Your task to perform on an android device: change your default location settings in chrome Image 0: 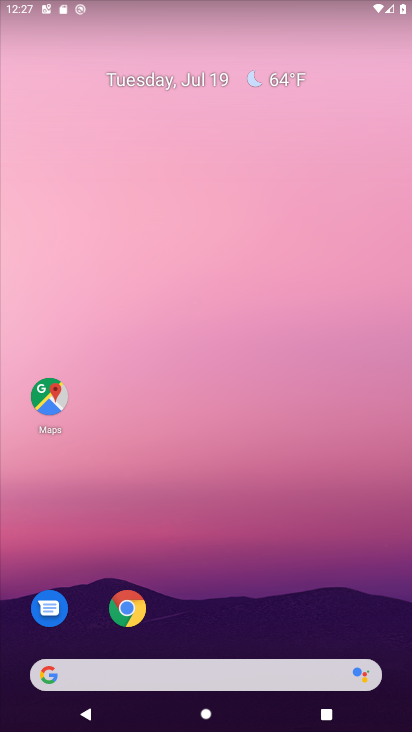
Step 0: drag from (312, 590) to (303, 73)
Your task to perform on an android device: change your default location settings in chrome Image 1: 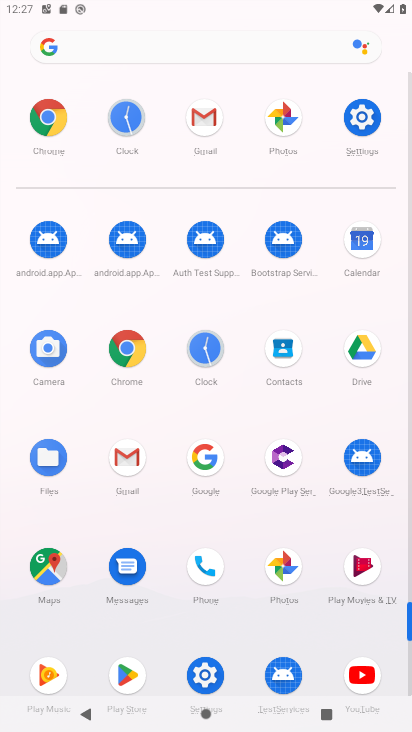
Step 1: click (134, 358)
Your task to perform on an android device: change your default location settings in chrome Image 2: 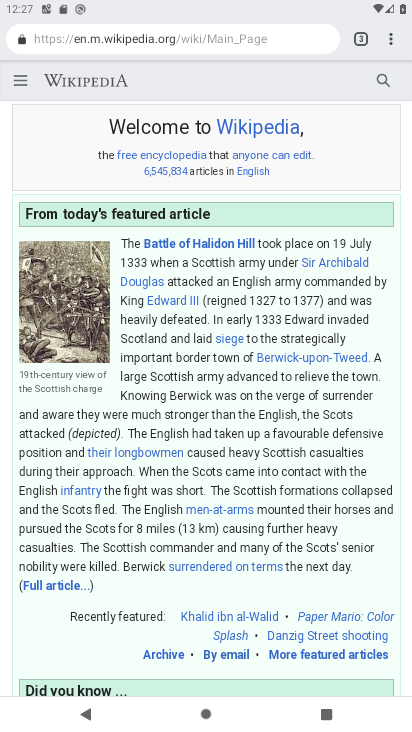
Step 2: click (389, 36)
Your task to perform on an android device: change your default location settings in chrome Image 3: 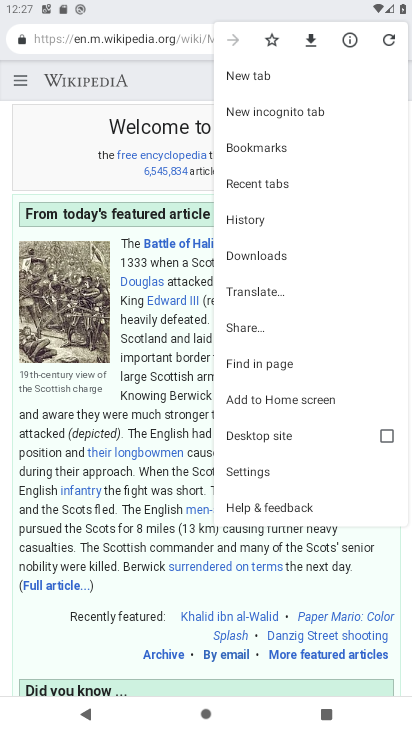
Step 3: click (269, 469)
Your task to perform on an android device: change your default location settings in chrome Image 4: 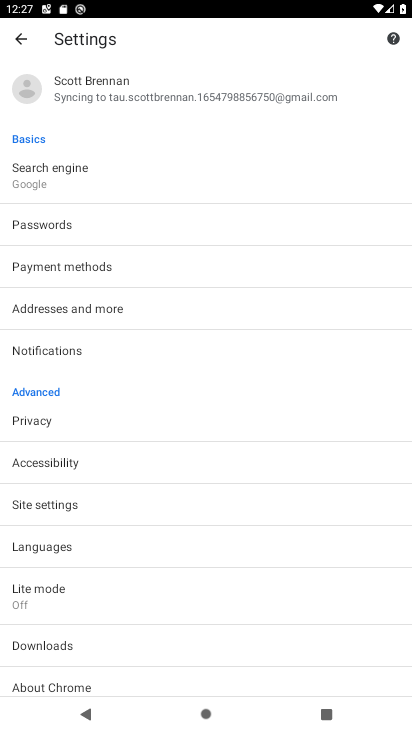
Step 4: click (89, 501)
Your task to perform on an android device: change your default location settings in chrome Image 5: 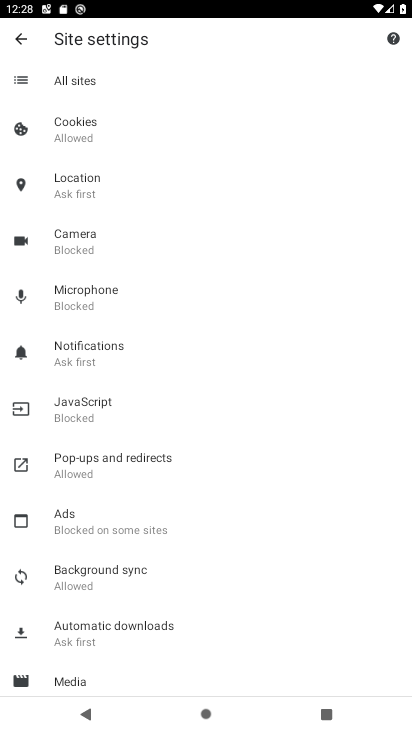
Step 5: click (133, 190)
Your task to perform on an android device: change your default location settings in chrome Image 6: 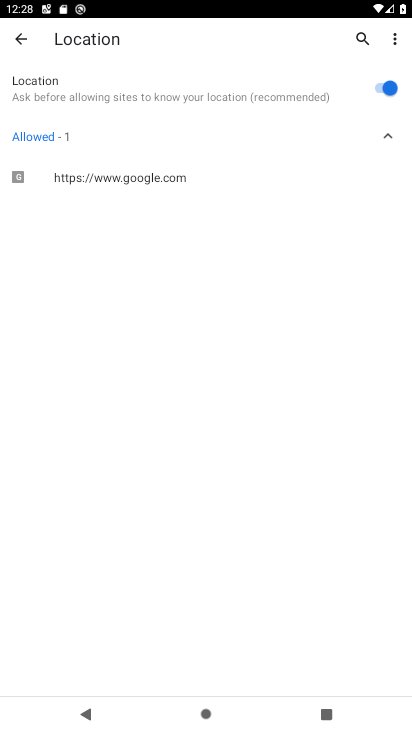
Step 6: click (383, 97)
Your task to perform on an android device: change your default location settings in chrome Image 7: 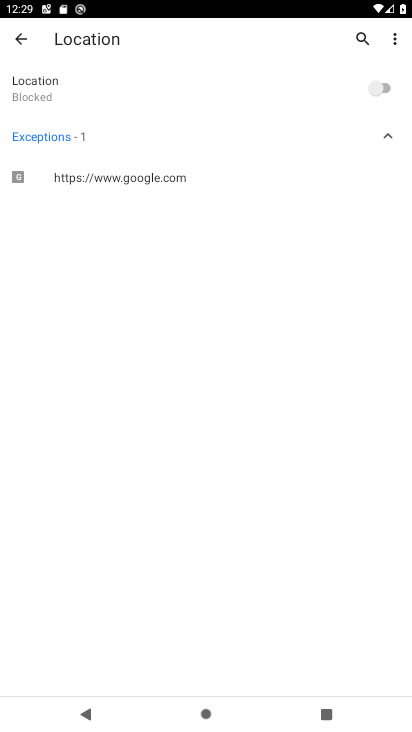
Step 7: task complete